Your task to perform on an android device: clear all cookies in the chrome app Image 0: 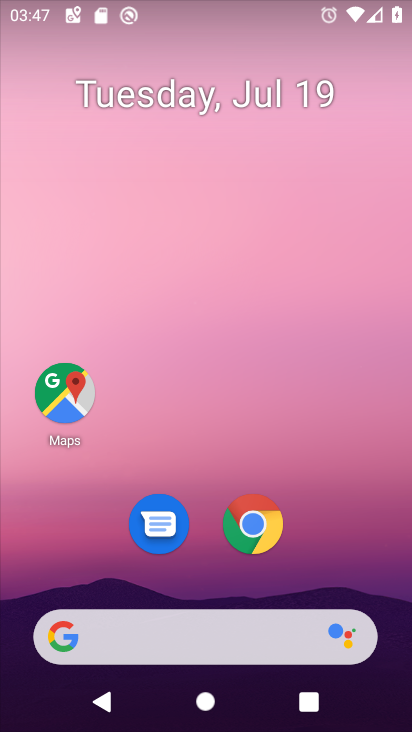
Step 0: click (253, 526)
Your task to perform on an android device: clear all cookies in the chrome app Image 1: 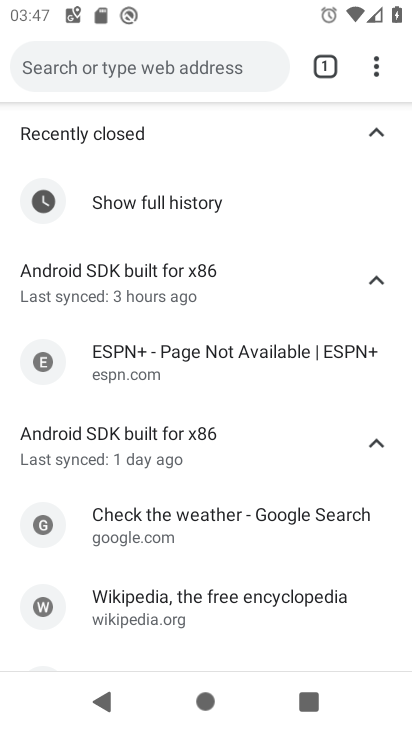
Step 1: click (377, 70)
Your task to perform on an android device: clear all cookies in the chrome app Image 2: 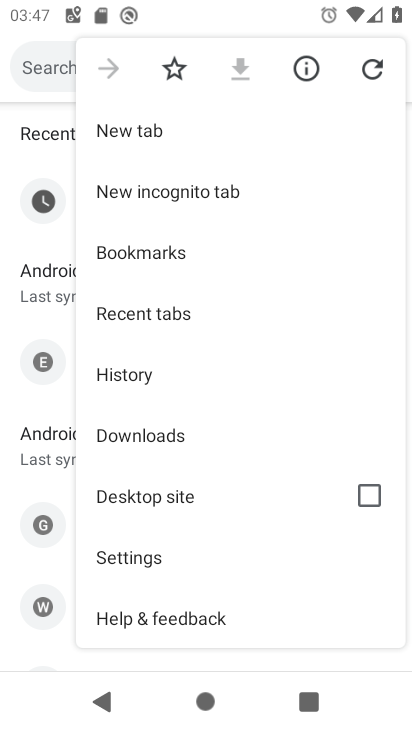
Step 2: click (163, 568)
Your task to perform on an android device: clear all cookies in the chrome app Image 3: 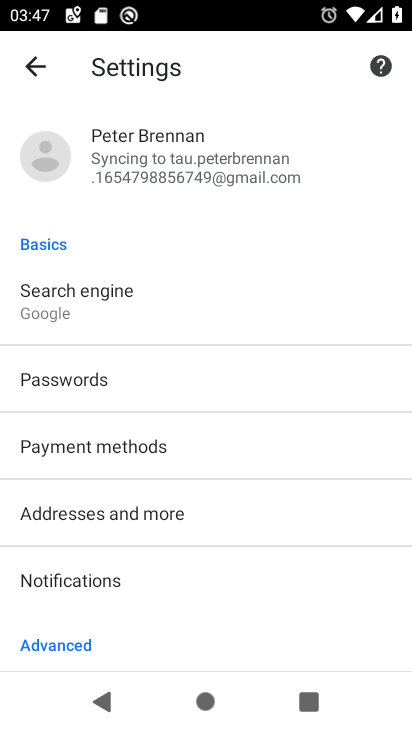
Step 3: drag from (163, 578) to (180, 432)
Your task to perform on an android device: clear all cookies in the chrome app Image 4: 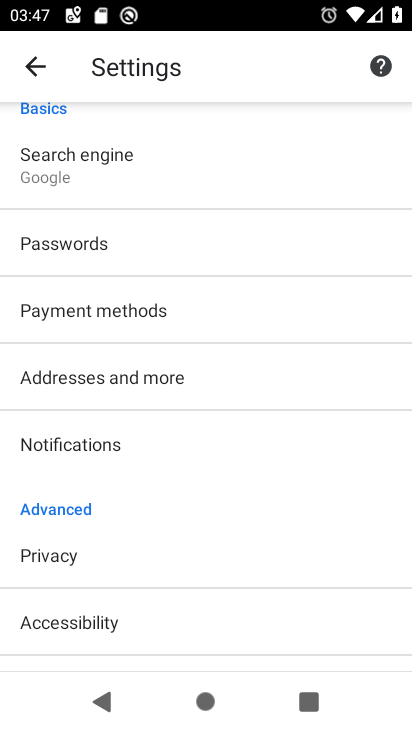
Step 4: click (112, 557)
Your task to perform on an android device: clear all cookies in the chrome app Image 5: 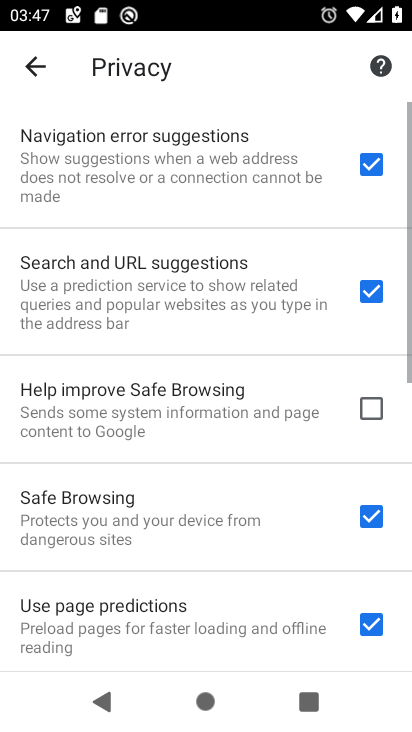
Step 5: drag from (212, 524) to (267, 13)
Your task to perform on an android device: clear all cookies in the chrome app Image 6: 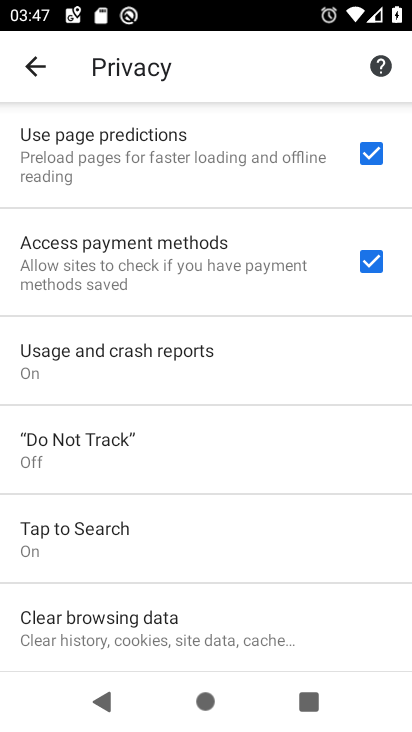
Step 6: click (187, 632)
Your task to perform on an android device: clear all cookies in the chrome app Image 7: 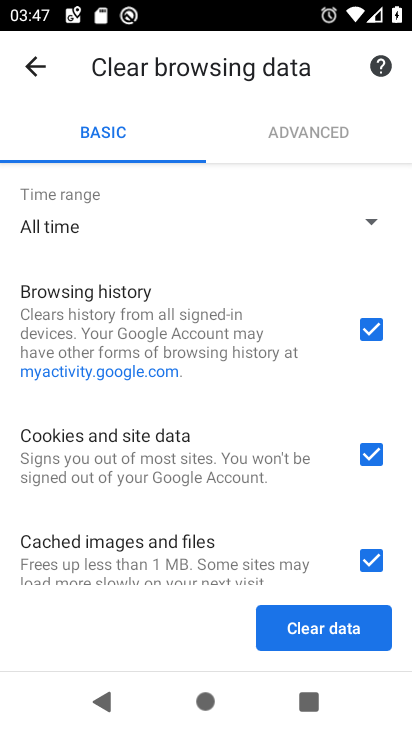
Step 7: click (379, 562)
Your task to perform on an android device: clear all cookies in the chrome app Image 8: 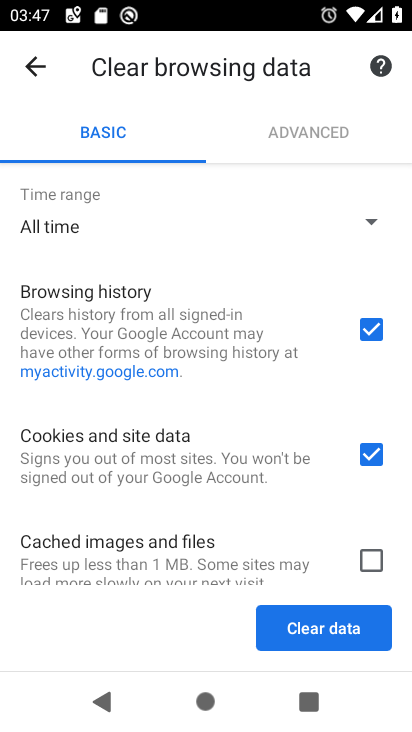
Step 8: click (370, 325)
Your task to perform on an android device: clear all cookies in the chrome app Image 9: 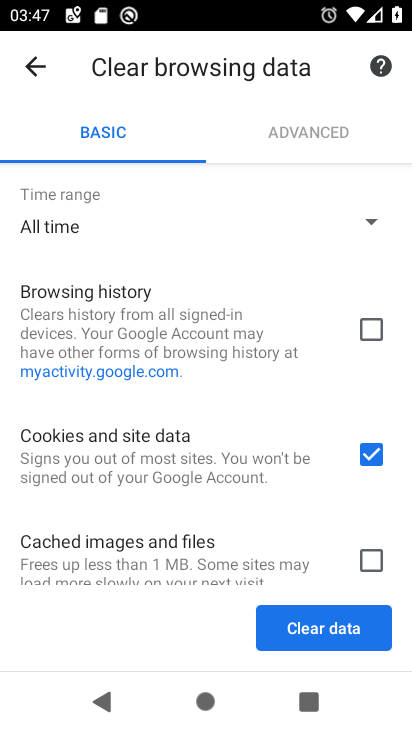
Step 9: click (313, 630)
Your task to perform on an android device: clear all cookies in the chrome app Image 10: 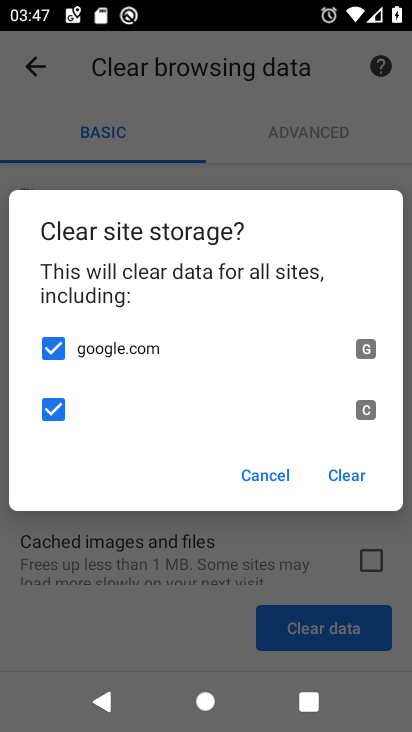
Step 10: click (350, 468)
Your task to perform on an android device: clear all cookies in the chrome app Image 11: 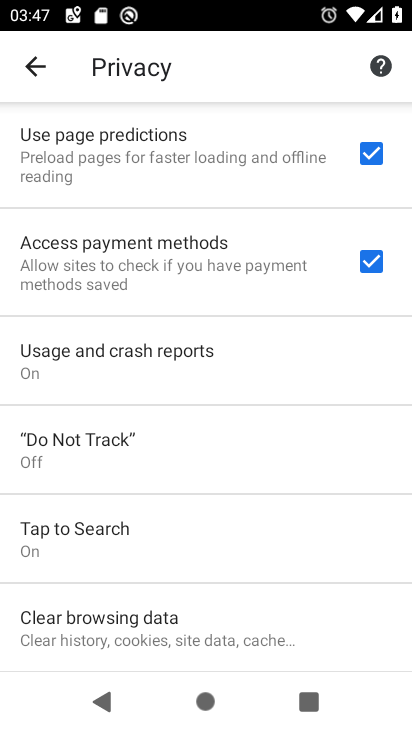
Step 11: task complete